Your task to perform on an android device: Open Google Chrome Image 0: 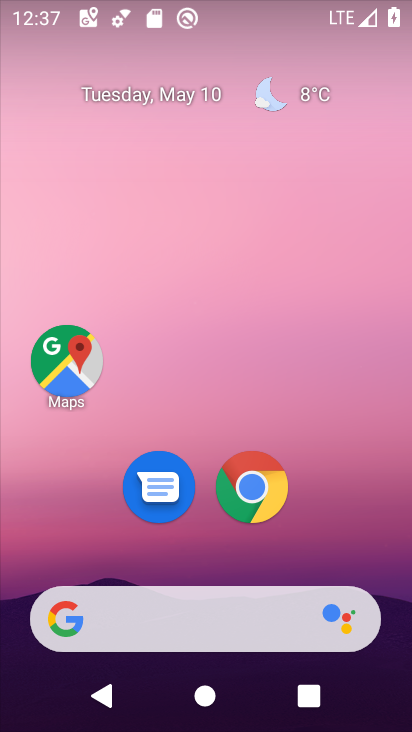
Step 0: click (249, 488)
Your task to perform on an android device: Open Google Chrome Image 1: 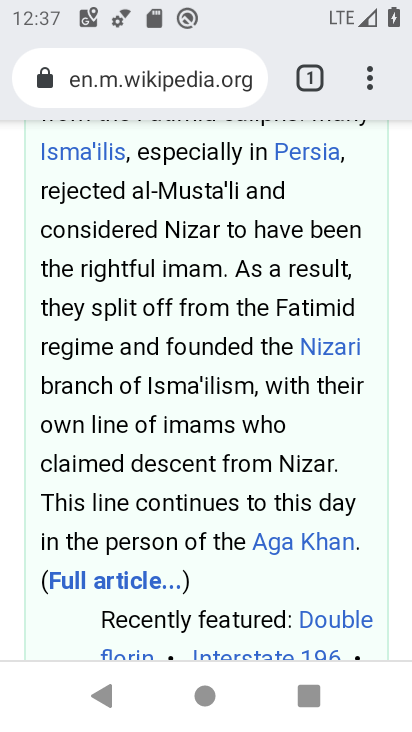
Step 1: click (303, 69)
Your task to perform on an android device: Open Google Chrome Image 2: 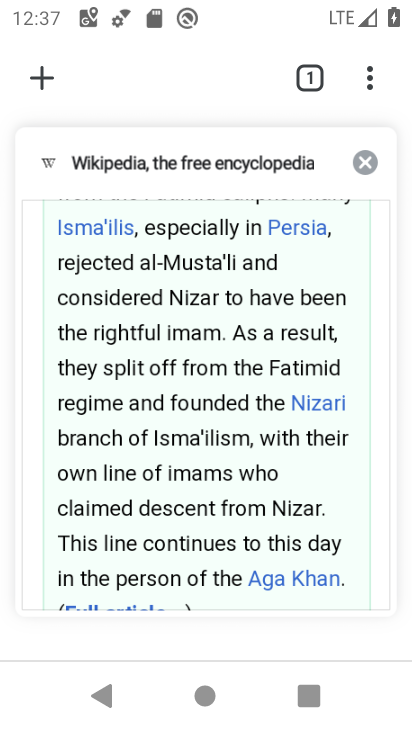
Step 2: click (366, 157)
Your task to perform on an android device: Open Google Chrome Image 3: 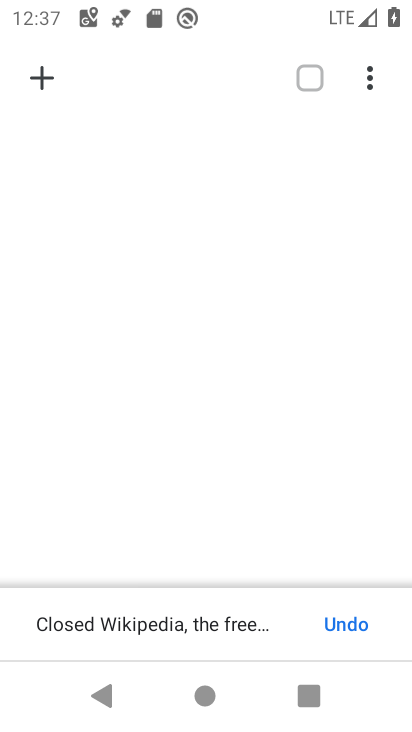
Step 3: click (50, 79)
Your task to perform on an android device: Open Google Chrome Image 4: 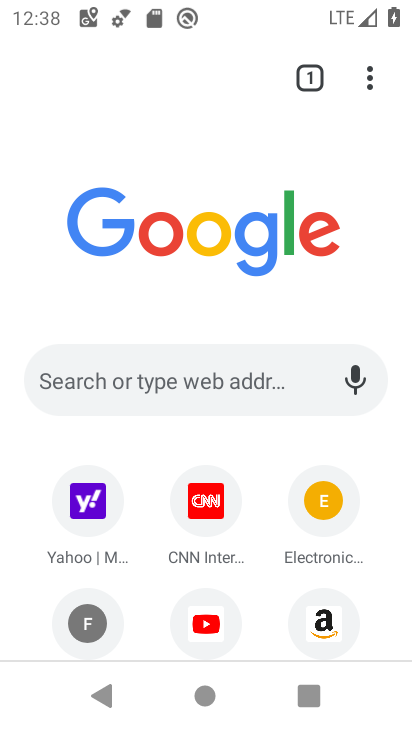
Step 4: task complete